Your task to perform on an android device: Open privacy settings Image 0: 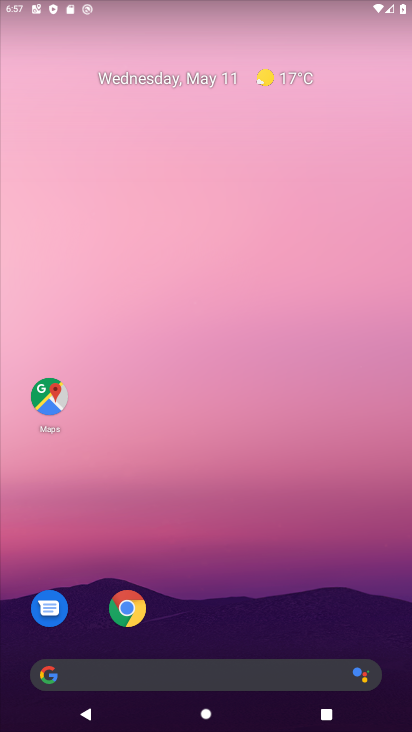
Step 0: drag from (265, 592) to (259, 51)
Your task to perform on an android device: Open privacy settings Image 1: 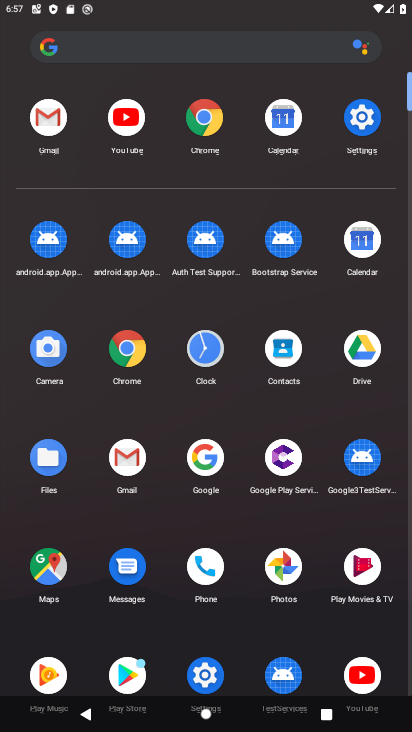
Step 1: click (363, 122)
Your task to perform on an android device: Open privacy settings Image 2: 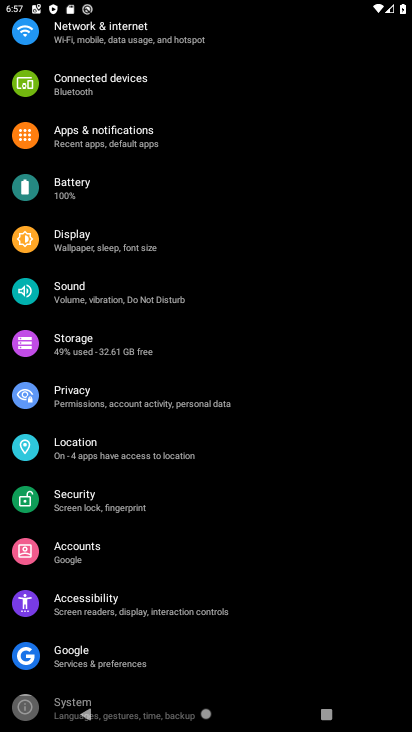
Step 2: click (130, 386)
Your task to perform on an android device: Open privacy settings Image 3: 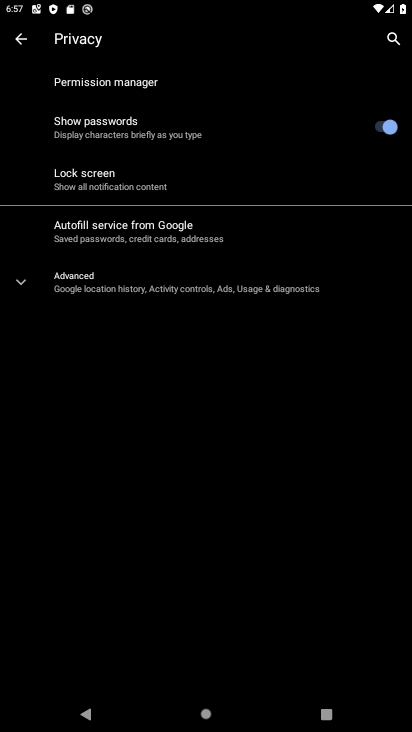
Step 3: task complete